Your task to perform on an android device: What's on my calendar today? Image 0: 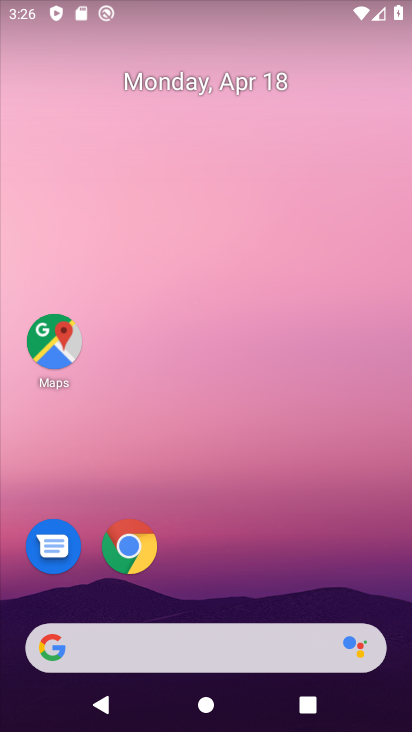
Step 0: drag from (293, 573) to (207, 101)
Your task to perform on an android device: What's on my calendar today? Image 1: 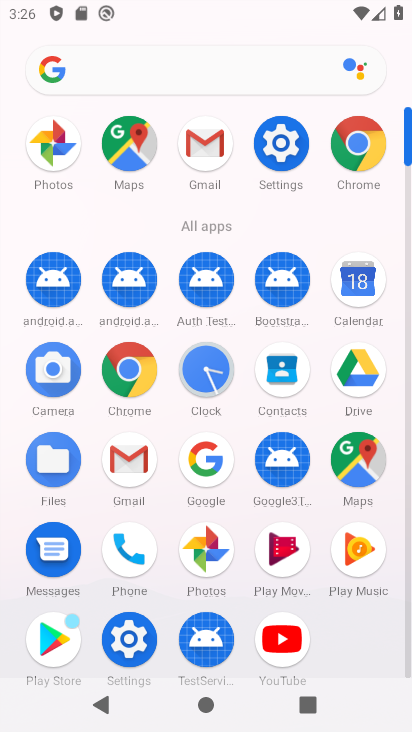
Step 1: click (346, 297)
Your task to perform on an android device: What's on my calendar today? Image 2: 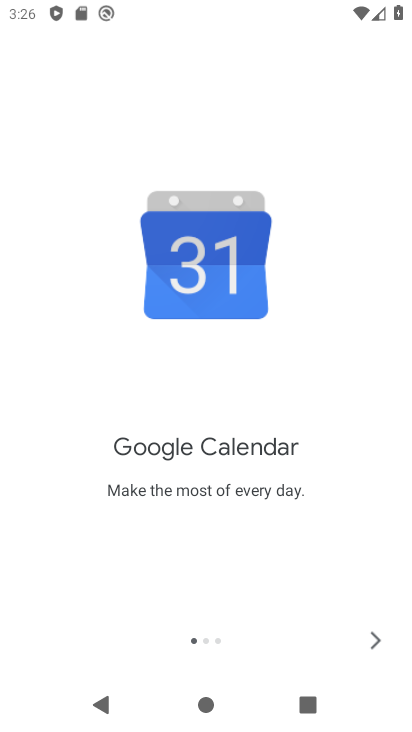
Step 2: click (370, 635)
Your task to perform on an android device: What's on my calendar today? Image 3: 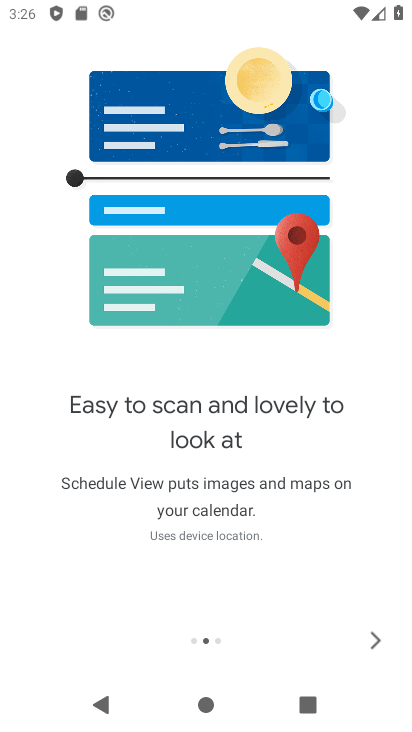
Step 3: click (368, 637)
Your task to perform on an android device: What's on my calendar today? Image 4: 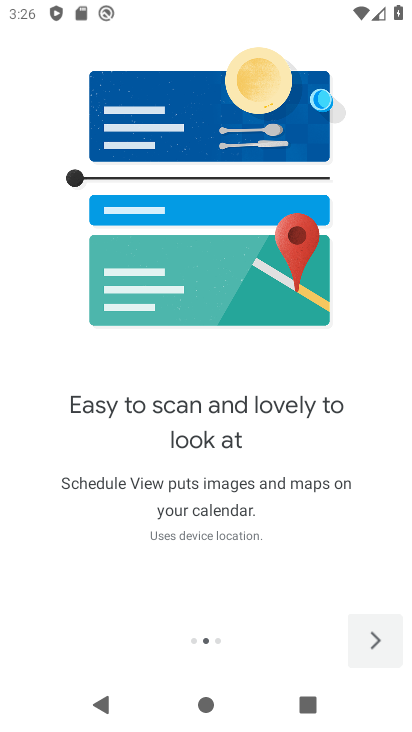
Step 4: click (367, 636)
Your task to perform on an android device: What's on my calendar today? Image 5: 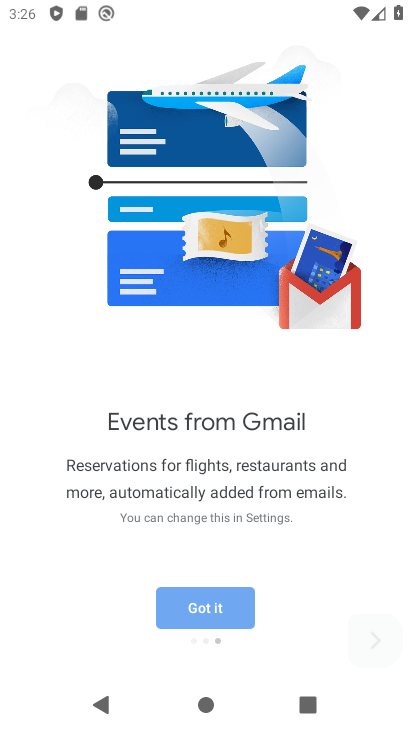
Step 5: click (367, 636)
Your task to perform on an android device: What's on my calendar today? Image 6: 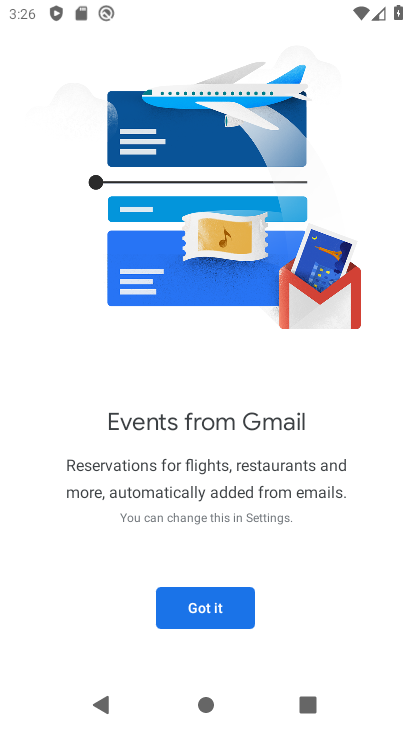
Step 6: click (214, 609)
Your task to perform on an android device: What's on my calendar today? Image 7: 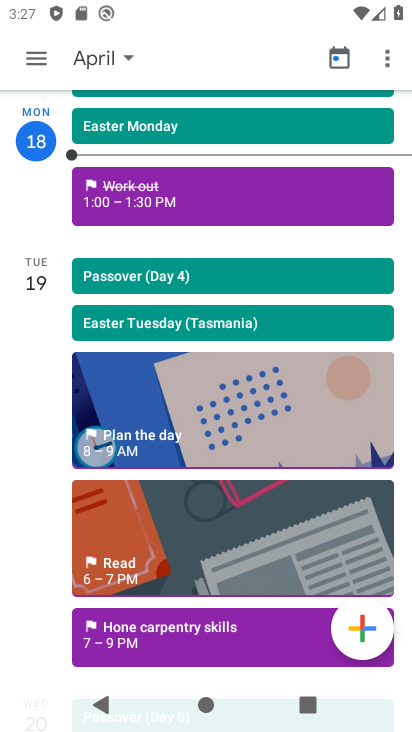
Step 7: task complete